Your task to perform on an android device: turn off javascript in the chrome app Image 0: 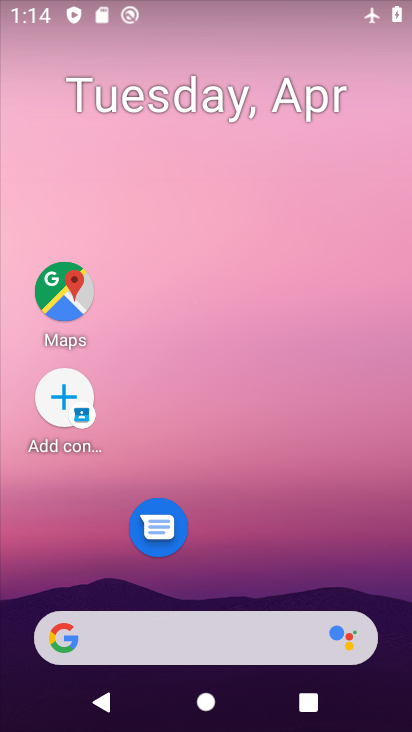
Step 0: drag from (256, 570) to (309, 165)
Your task to perform on an android device: turn off javascript in the chrome app Image 1: 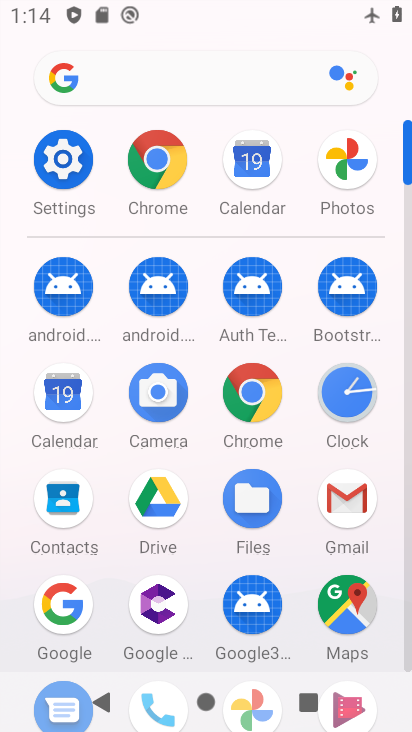
Step 1: click (156, 156)
Your task to perform on an android device: turn off javascript in the chrome app Image 2: 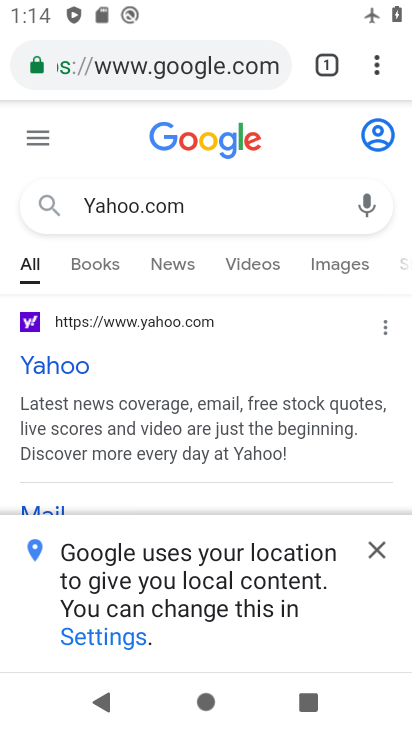
Step 2: click (378, 62)
Your task to perform on an android device: turn off javascript in the chrome app Image 3: 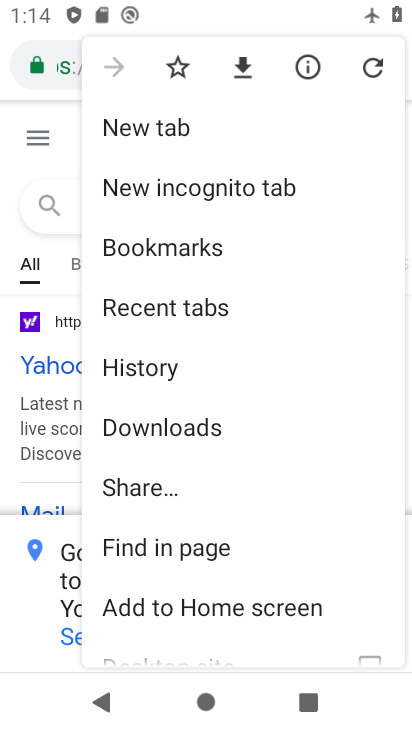
Step 3: drag from (270, 464) to (300, 375)
Your task to perform on an android device: turn off javascript in the chrome app Image 4: 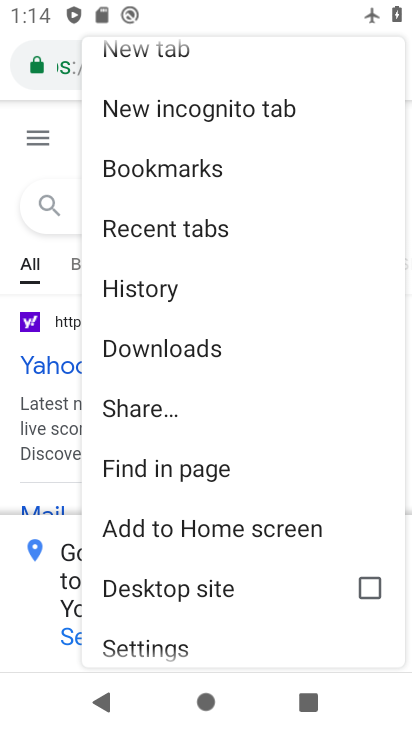
Step 4: drag from (236, 560) to (282, 408)
Your task to perform on an android device: turn off javascript in the chrome app Image 5: 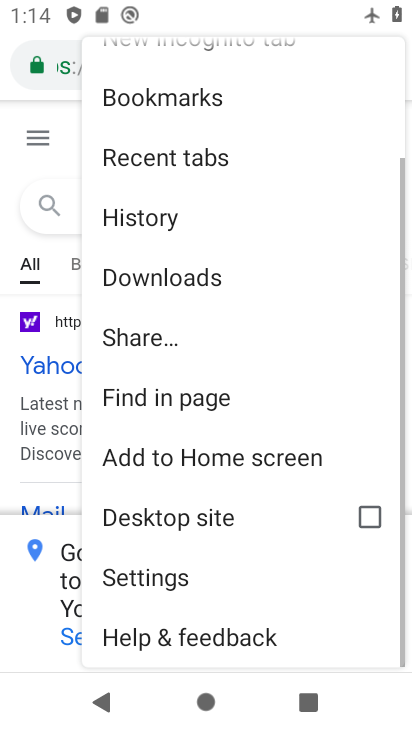
Step 5: click (171, 573)
Your task to perform on an android device: turn off javascript in the chrome app Image 6: 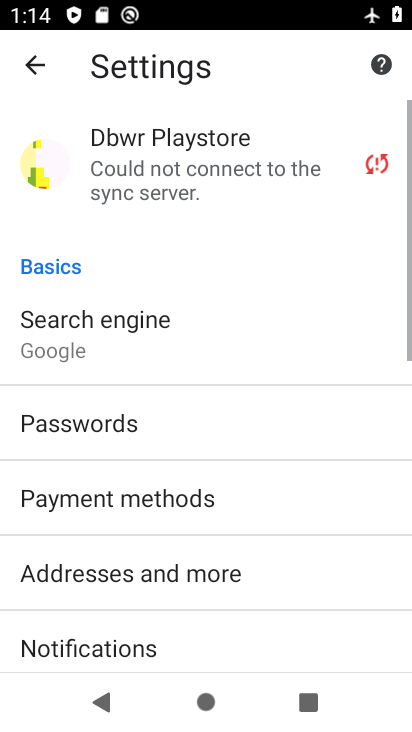
Step 6: drag from (170, 517) to (201, 368)
Your task to perform on an android device: turn off javascript in the chrome app Image 7: 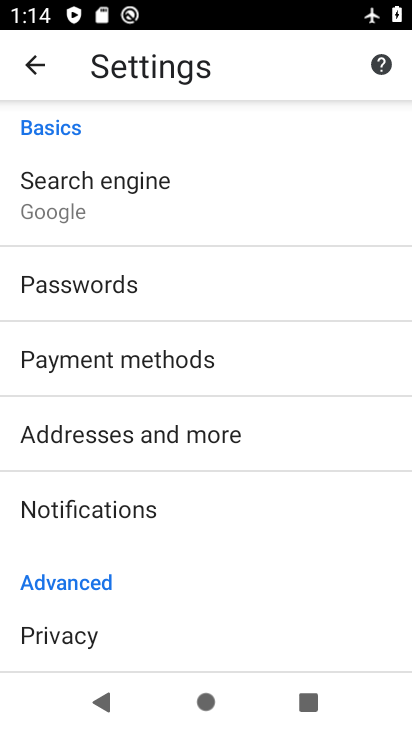
Step 7: drag from (195, 538) to (243, 406)
Your task to perform on an android device: turn off javascript in the chrome app Image 8: 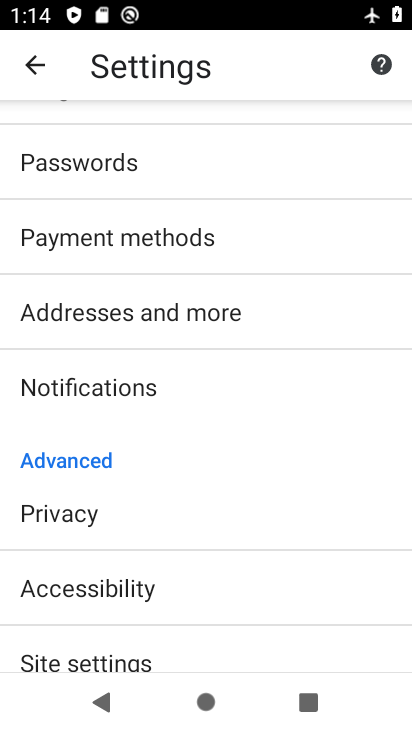
Step 8: drag from (203, 514) to (258, 413)
Your task to perform on an android device: turn off javascript in the chrome app Image 9: 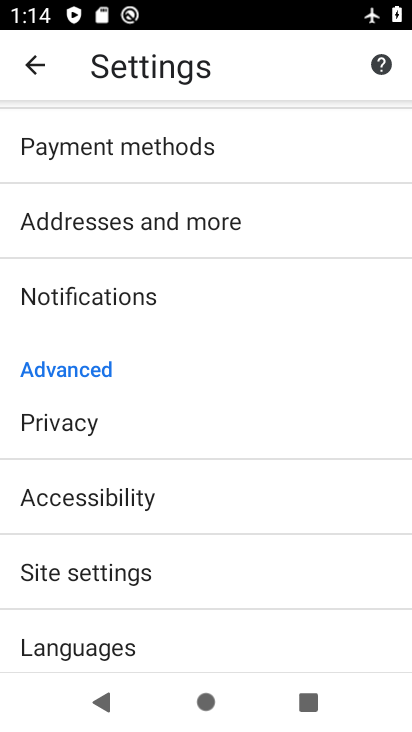
Step 9: click (133, 581)
Your task to perform on an android device: turn off javascript in the chrome app Image 10: 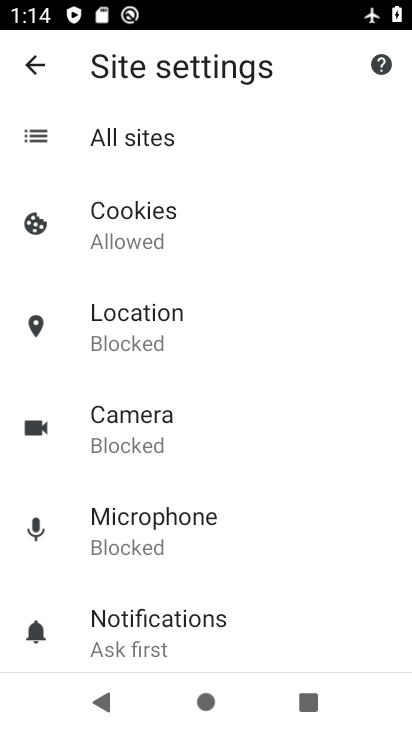
Step 10: drag from (176, 556) to (186, 432)
Your task to perform on an android device: turn off javascript in the chrome app Image 11: 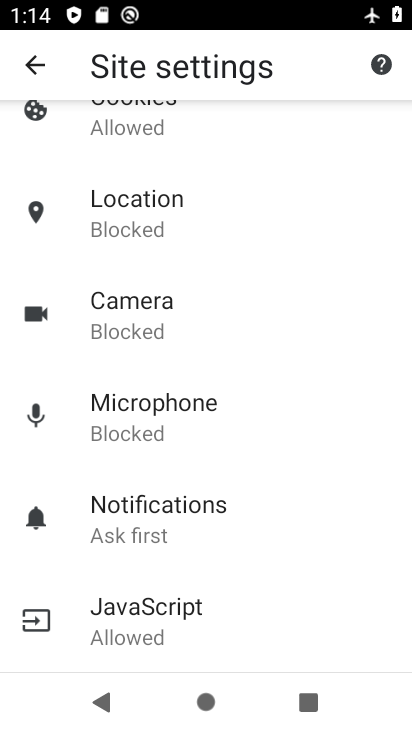
Step 11: drag from (190, 537) to (217, 396)
Your task to perform on an android device: turn off javascript in the chrome app Image 12: 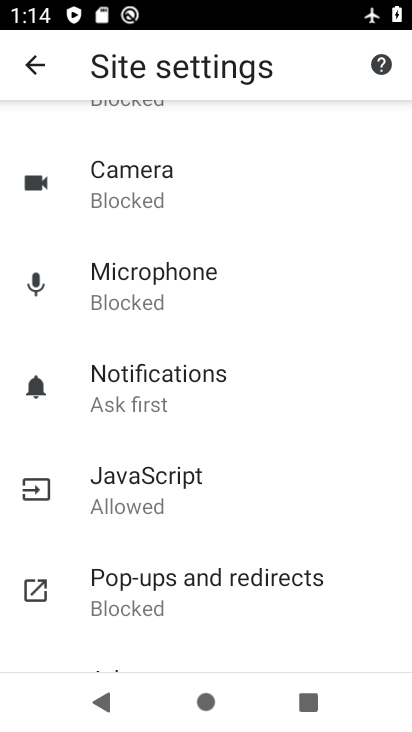
Step 12: click (192, 475)
Your task to perform on an android device: turn off javascript in the chrome app Image 13: 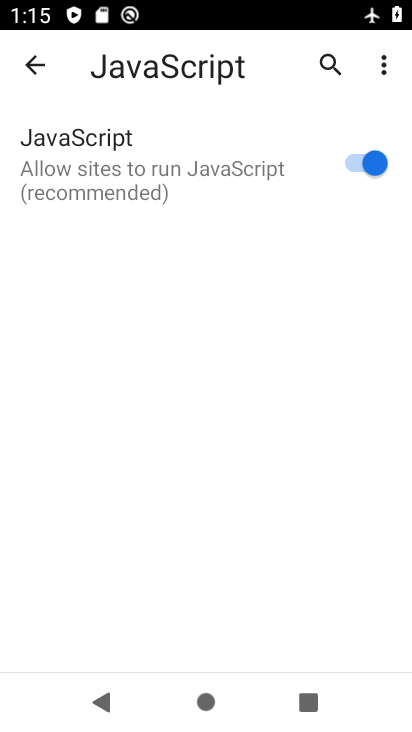
Step 13: click (368, 168)
Your task to perform on an android device: turn off javascript in the chrome app Image 14: 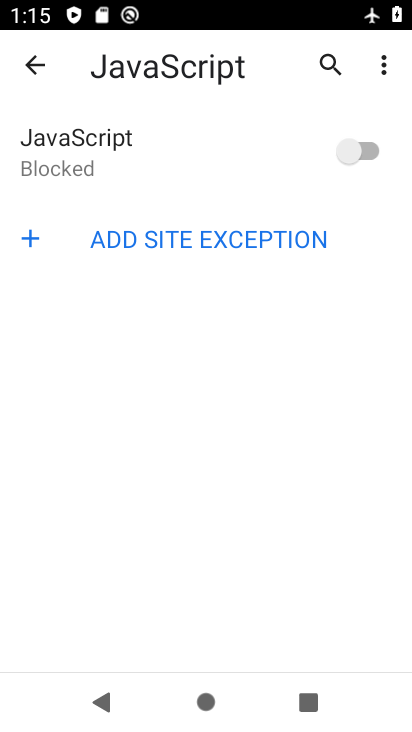
Step 14: task complete